Your task to perform on an android device: create a new album in the google photos Image 0: 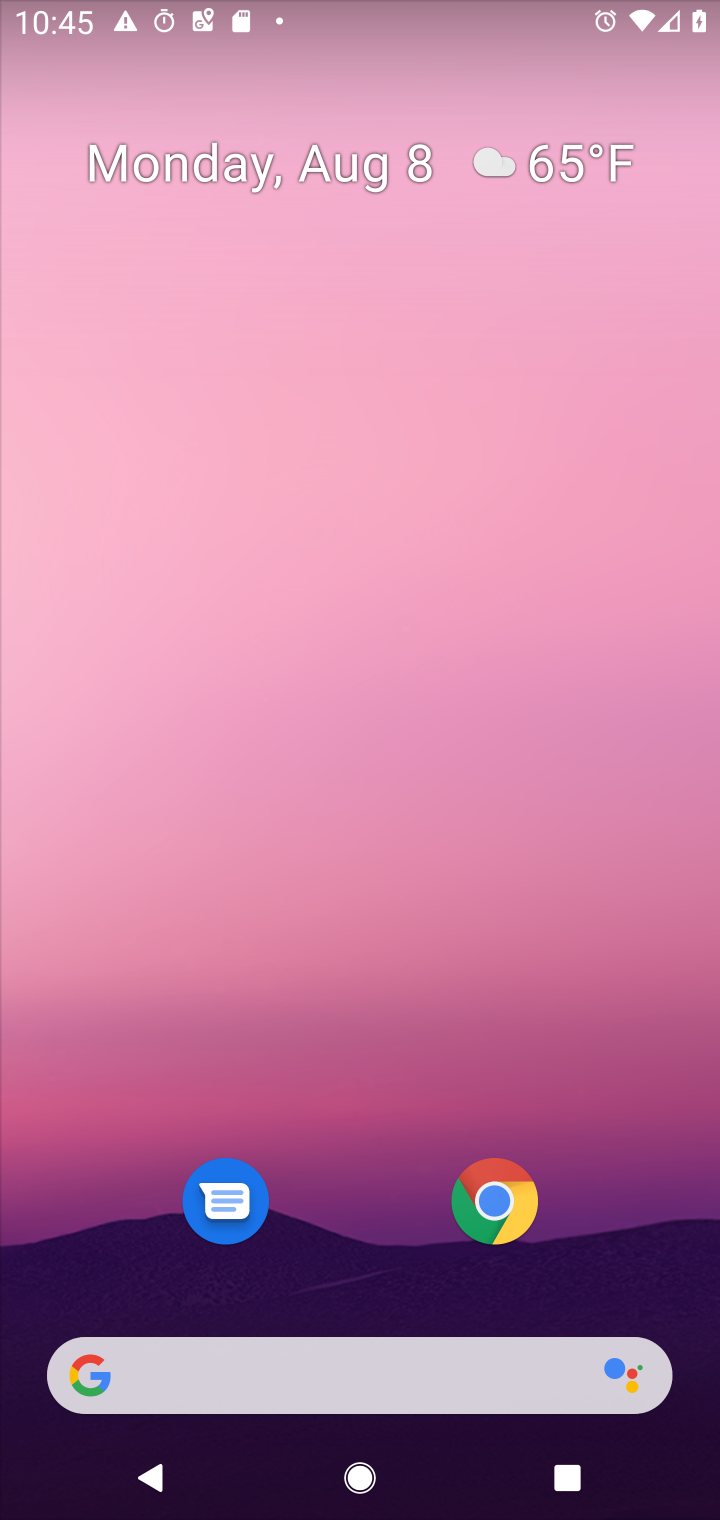
Step 0: press home button
Your task to perform on an android device: create a new album in the google photos Image 1: 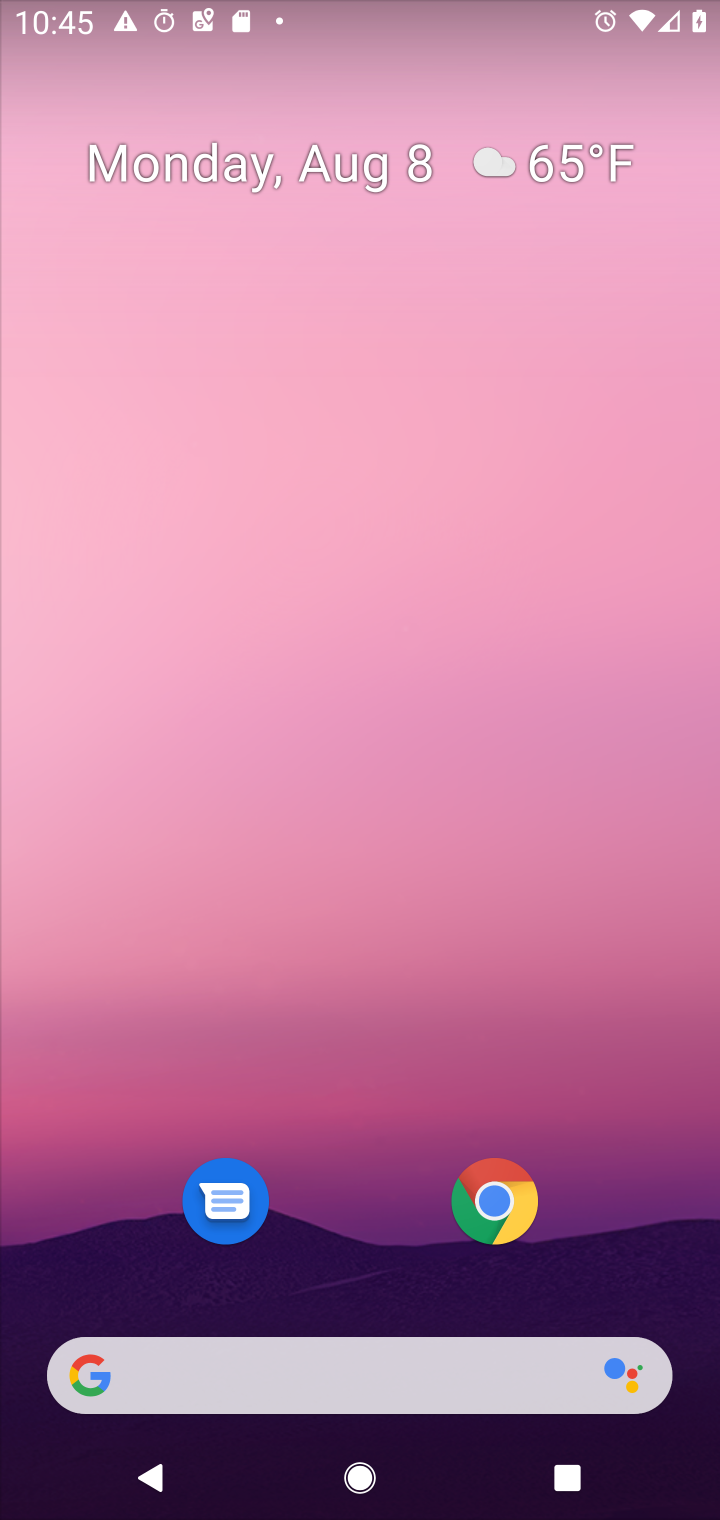
Step 1: drag from (370, 1248) to (442, 348)
Your task to perform on an android device: create a new album in the google photos Image 2: 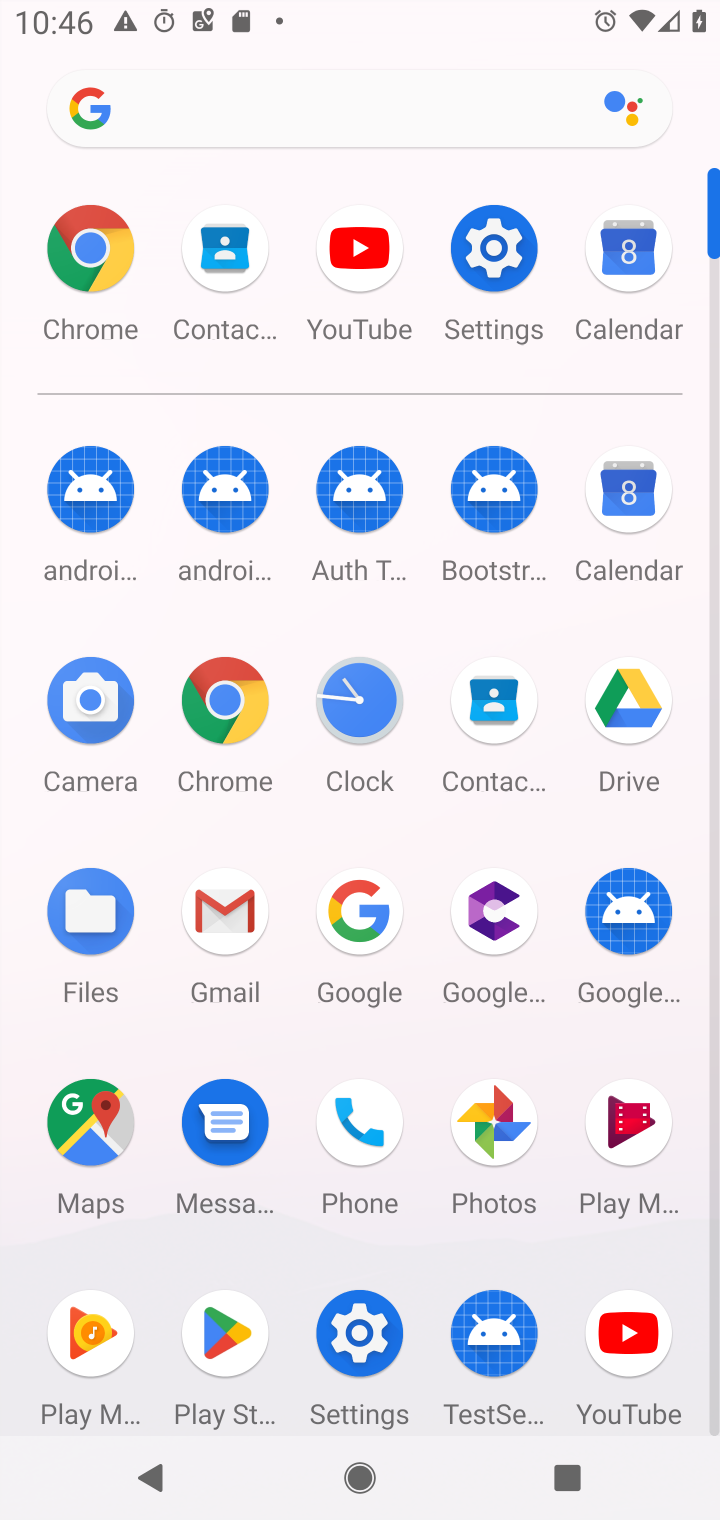
Step 2: click (489, 1138)
Your task to perform on an android device: create a new album in the google photos Image 3: 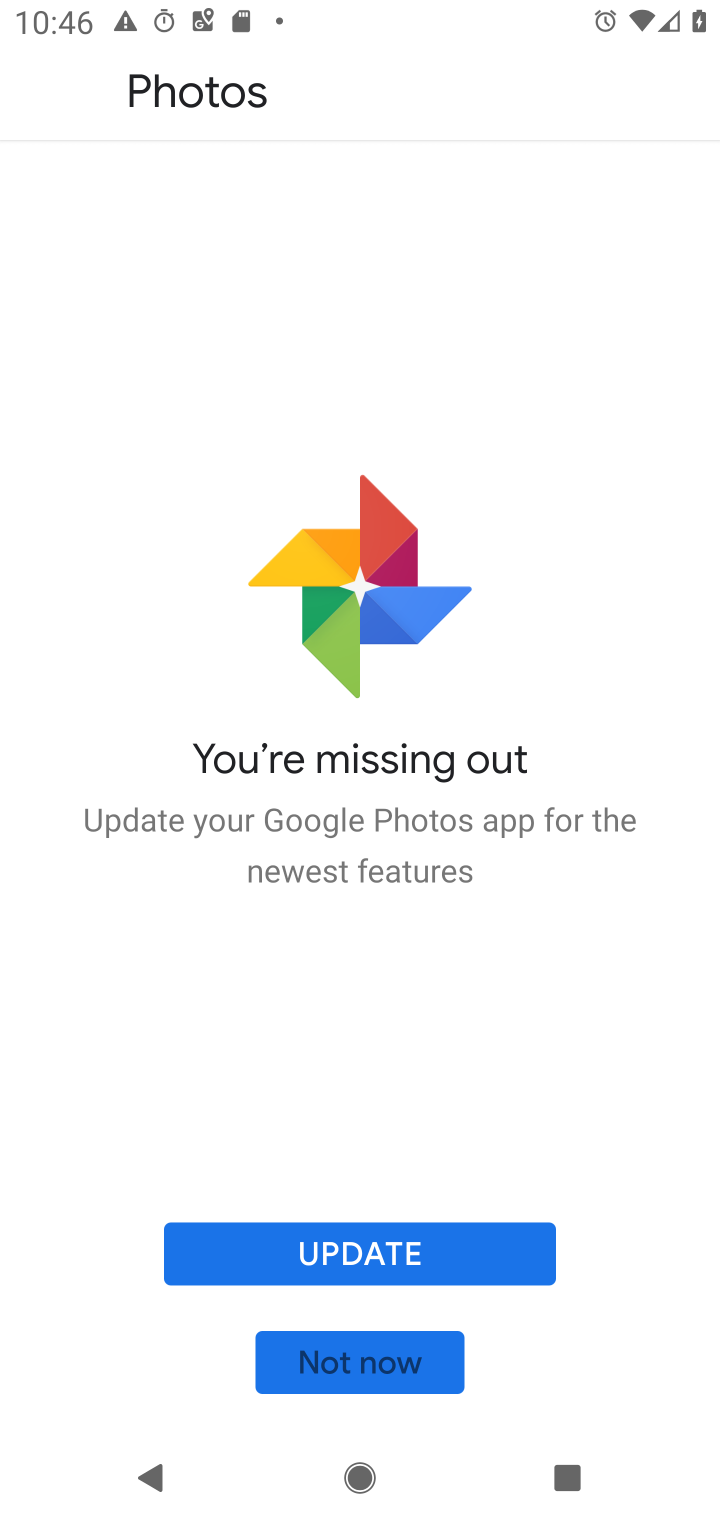
Step 3: click (385, 1348)
Your task to perform on an android device: create a new album in the google photos Image 4: 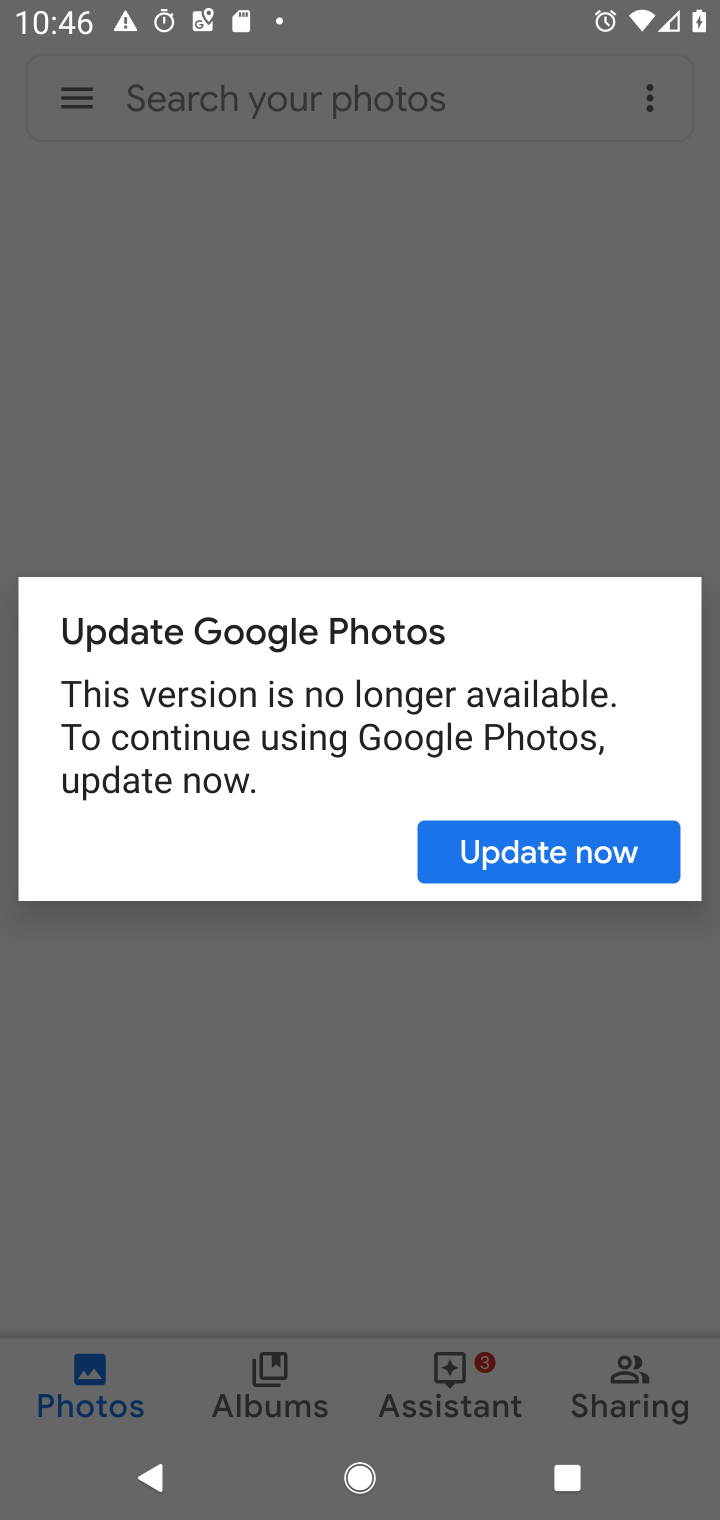
Step 4: click (609, 855)
Your task to perform on an android device: create a new album in the google photos Image 5: 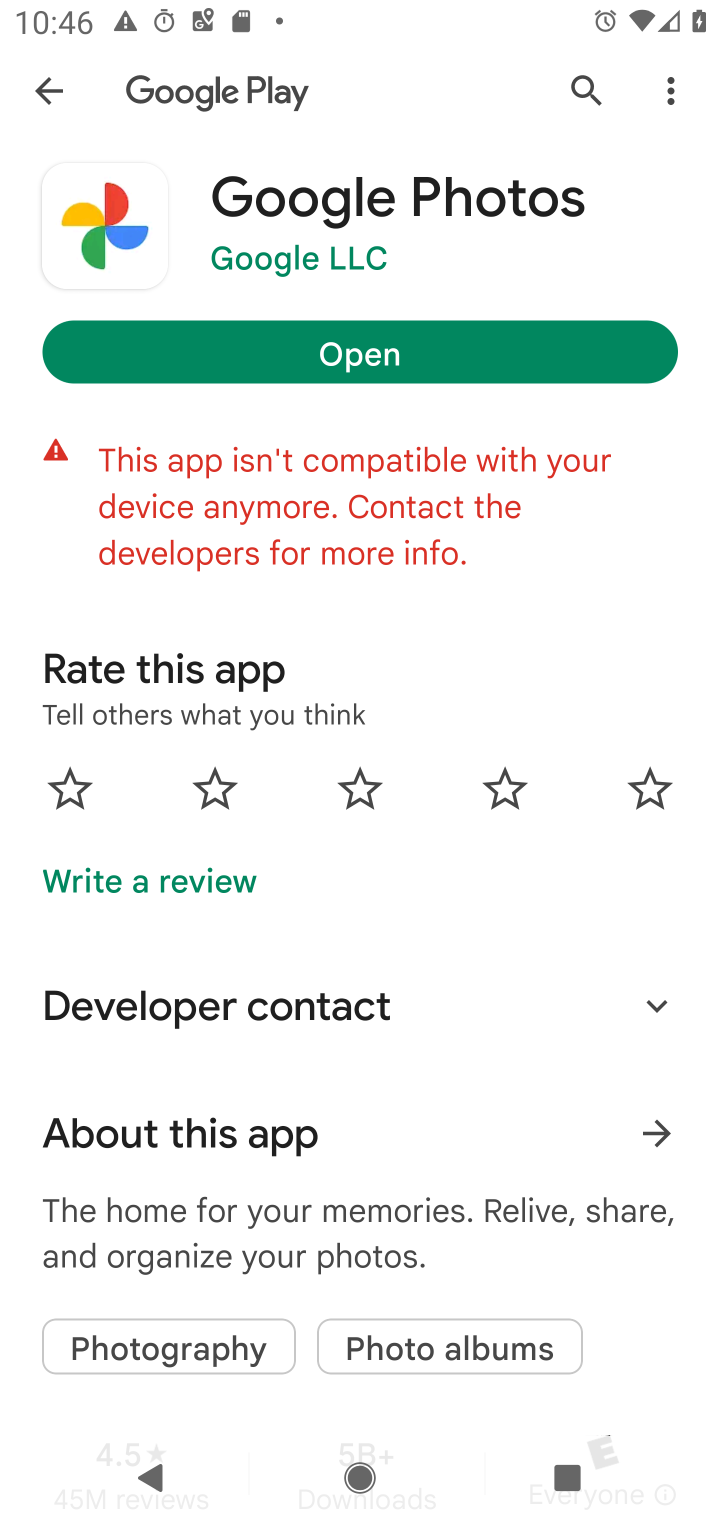
Step 5: click (409, 347)
Your task to perform on an android device: create a new album in the google photos Image 6: 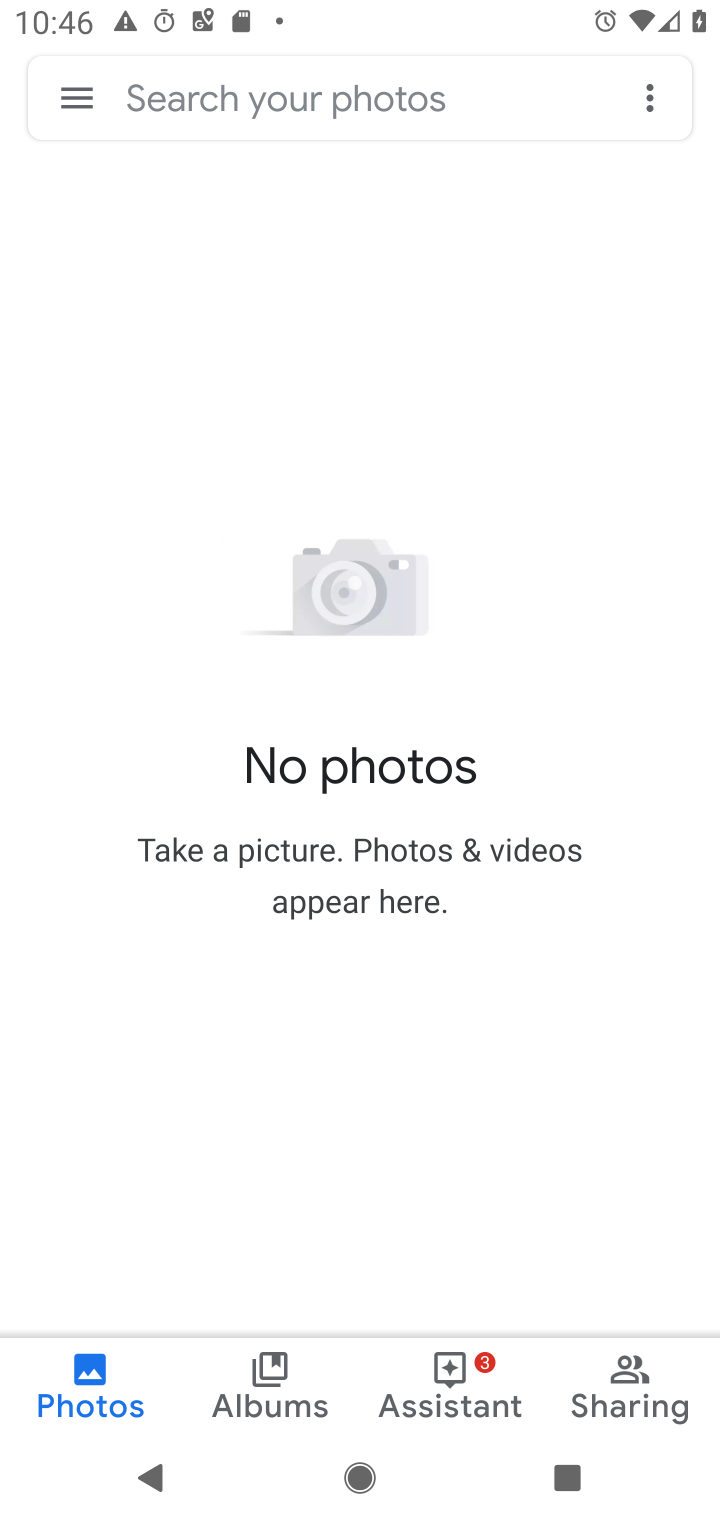
Step 6: click (649, 110)
Your task to perform on an android device: create a new album in the google photos Image 7: 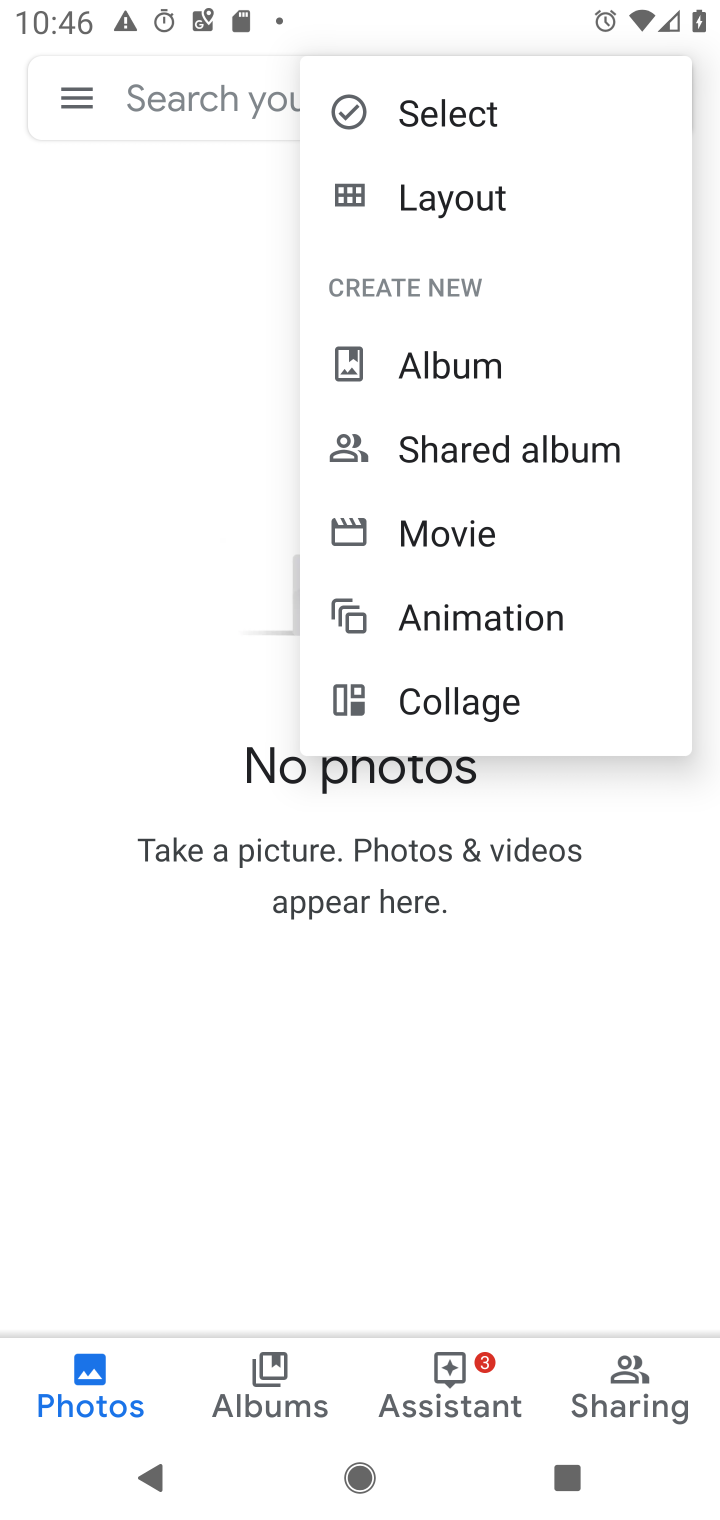
Step 7: click (460, 367)
Your task to perform on an android device: create a new album in the google photos Image 8: 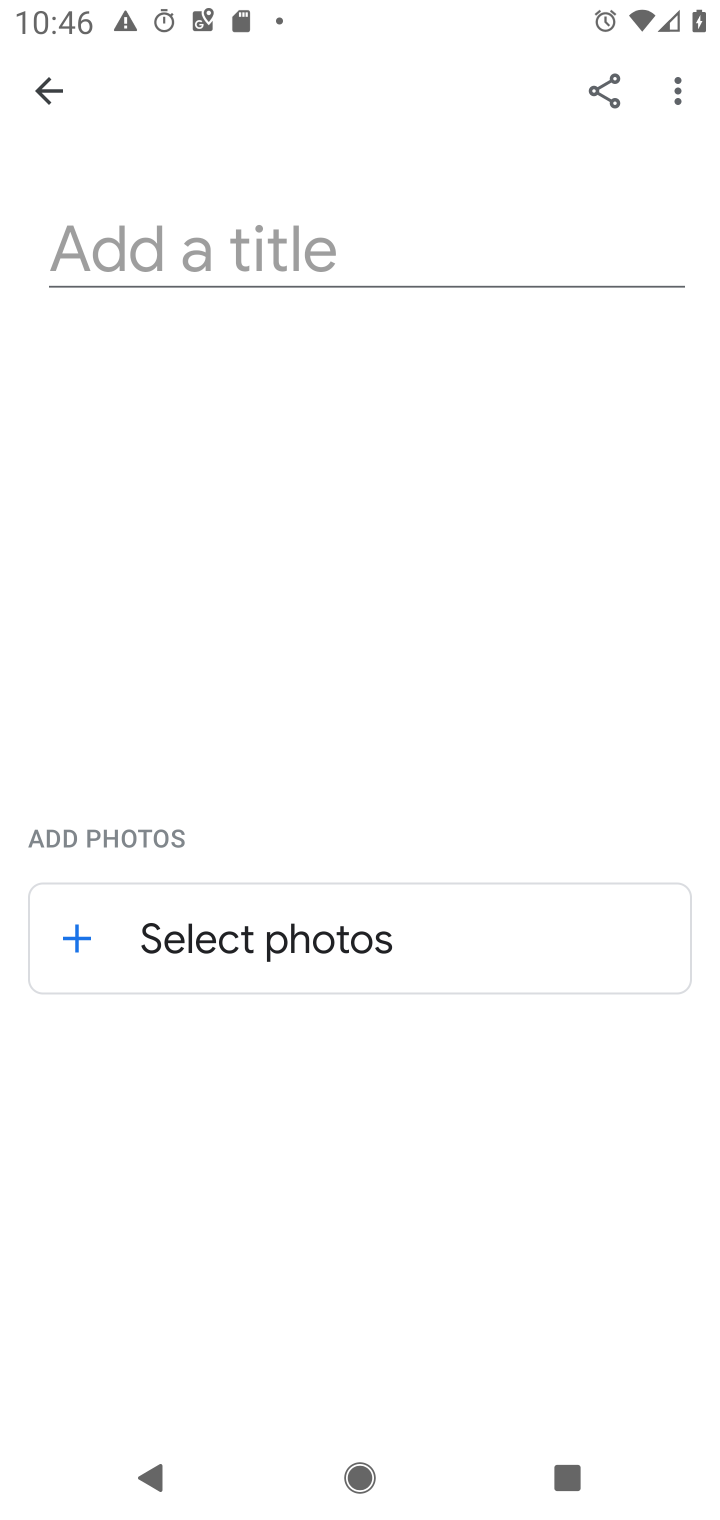
Step 8: click (367, 261)
Your task to perform on an android device: create a new album in the google photos Image 9: 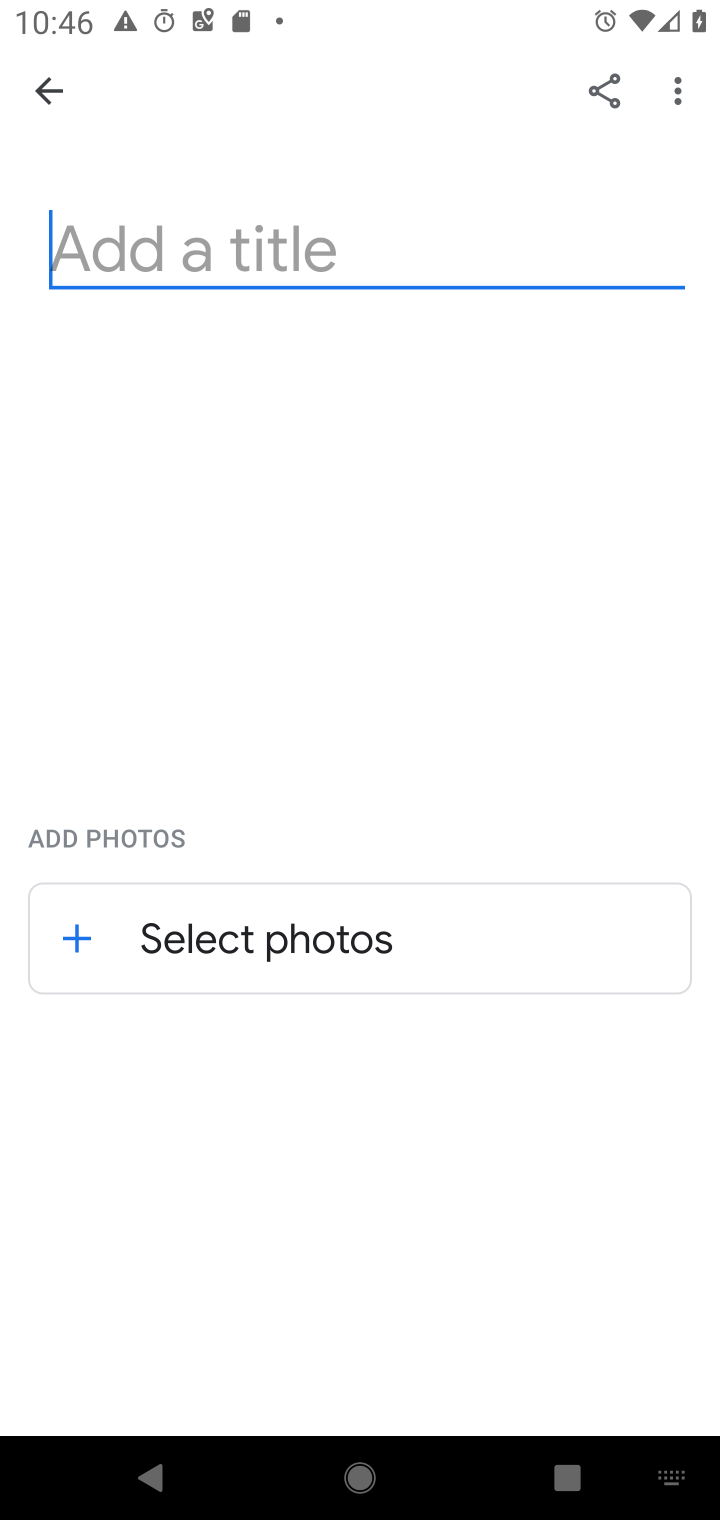
Step 9: type "fav"
Your task to perform on an android device: create a new album in the google photos Image 10: 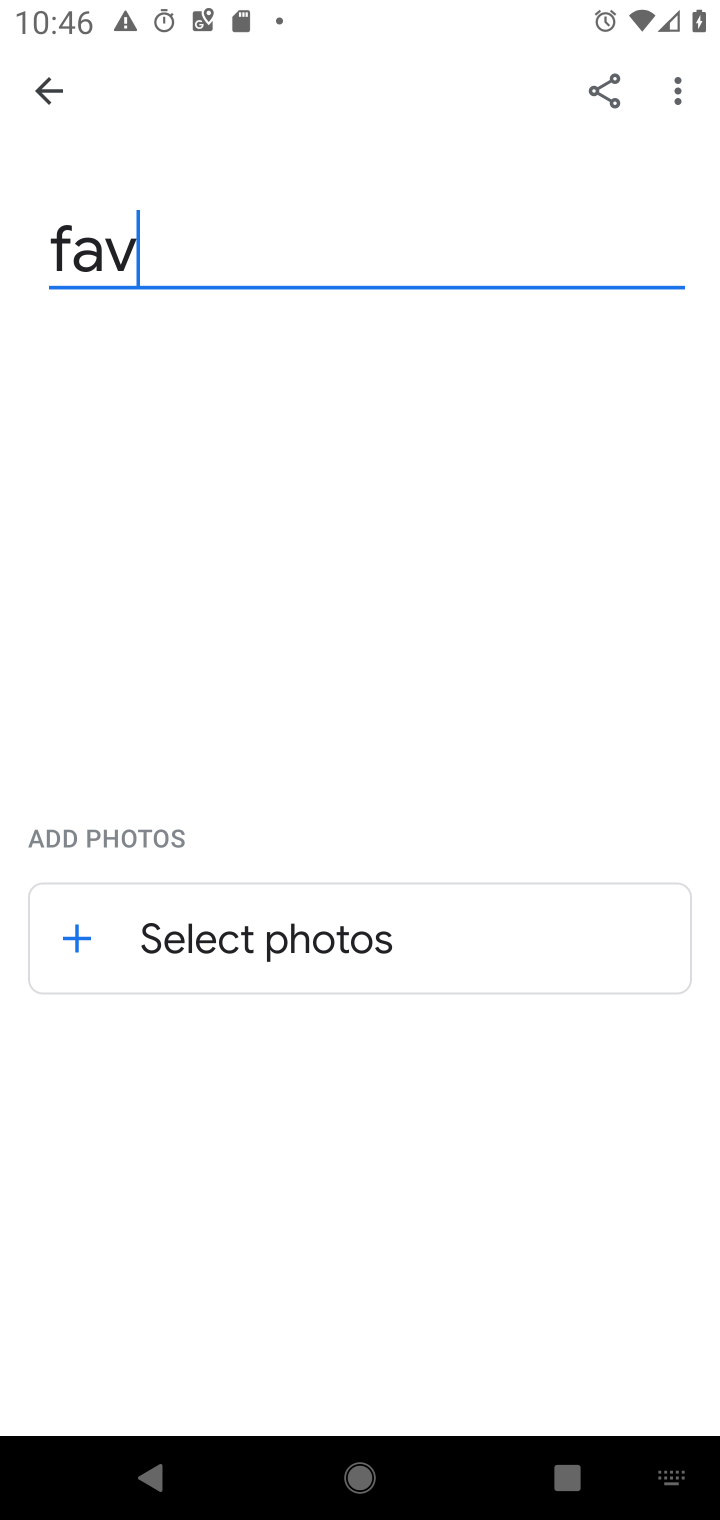
Step 10: click (229, 941)
Your task to perform on an android device: create a new album in the google photos Image 11: 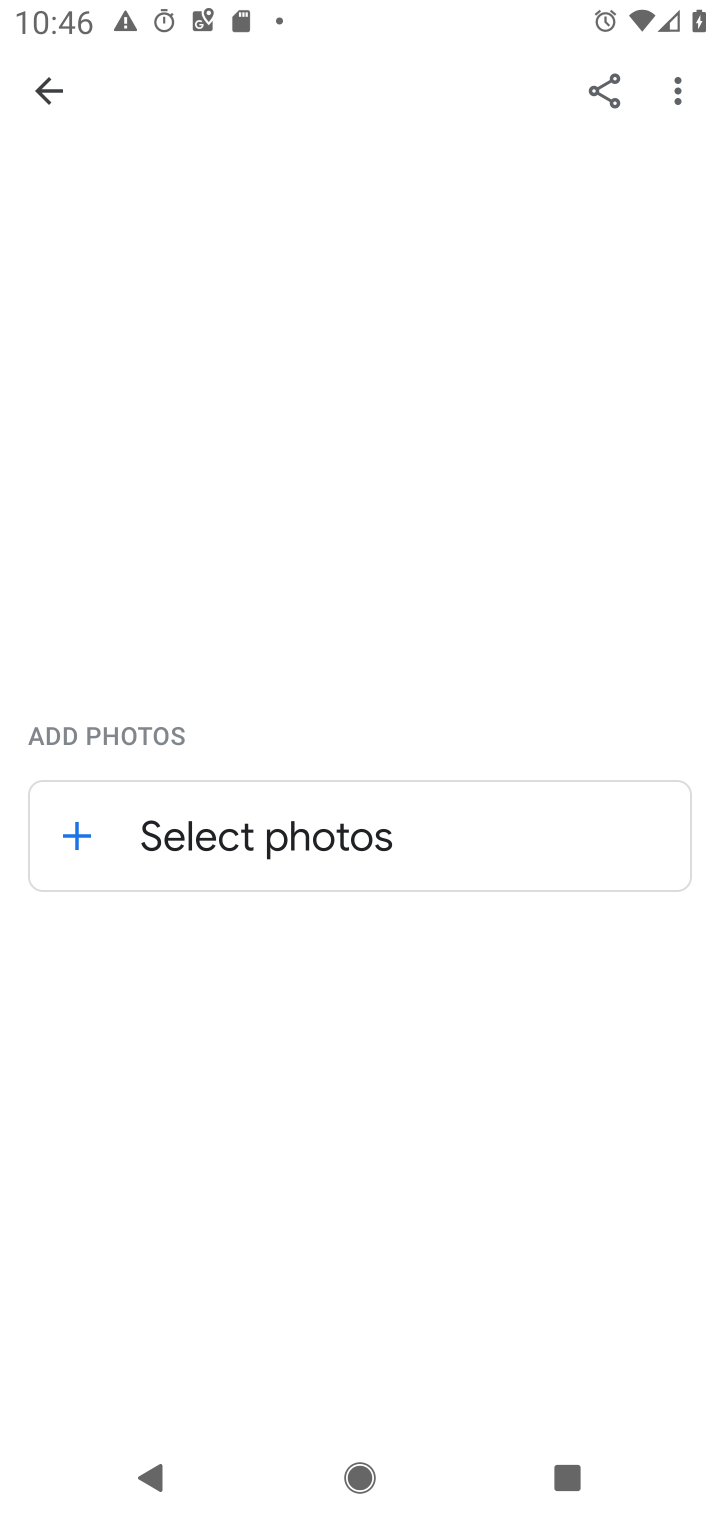
Step 11: click (118, 829)
Your task to perform on an android device: create a new album in the google photos Image 12: 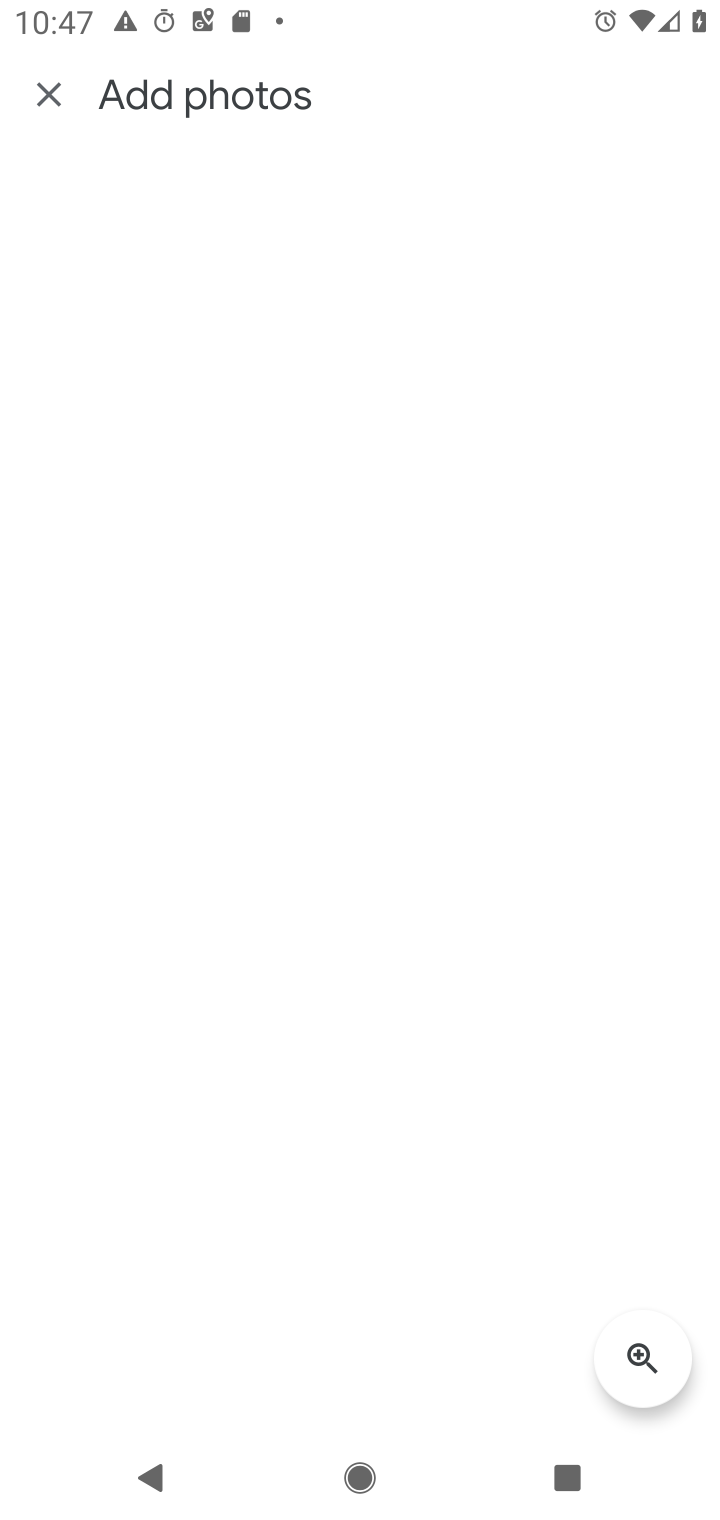
Step 12: task complete